Your task to perform on an android device: change keyboard looks Image 0: 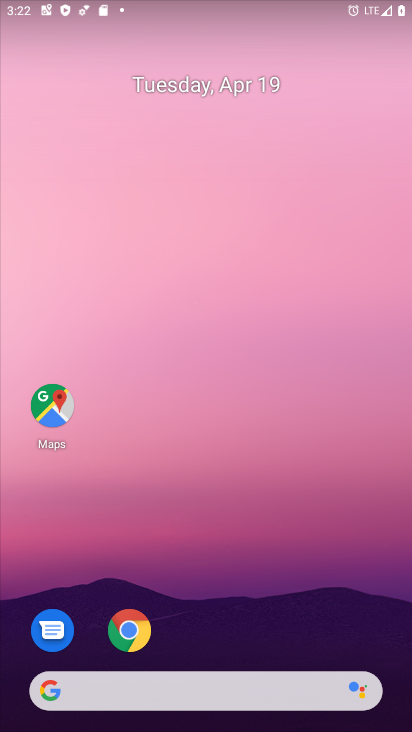
Step 0: drag from (218, 725) to (214, 71)
Your task to perform on an android device: change keyboard looks Image 1: 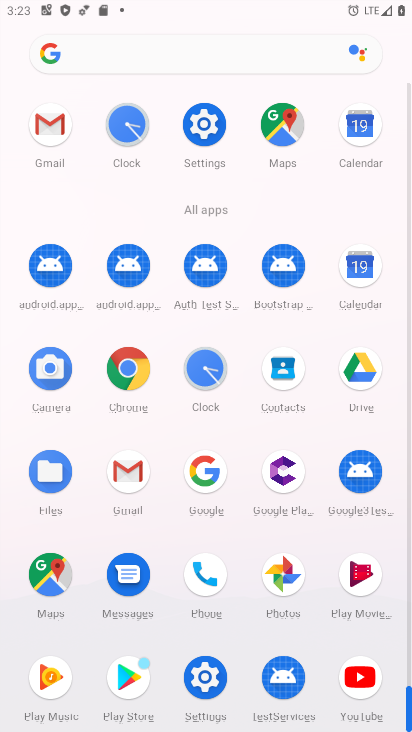
Step 1: click (200, 119)
Your task to perform on an android device: change keyboard looks Image 2: 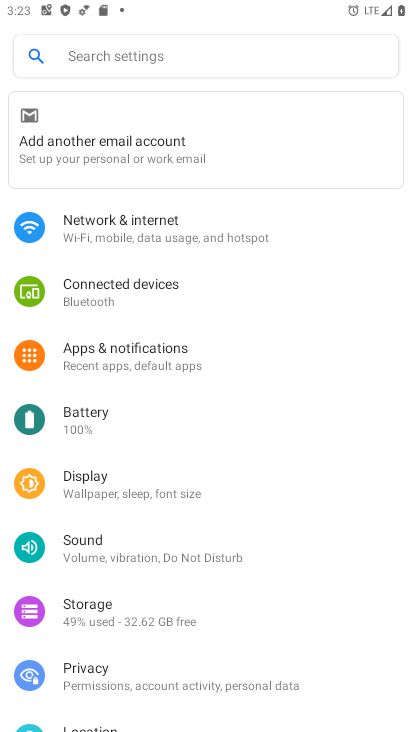
Step 2: drag from (121, 652) to (129, 96)
Your task to perform on an android device: change keyboard looks Image 3: 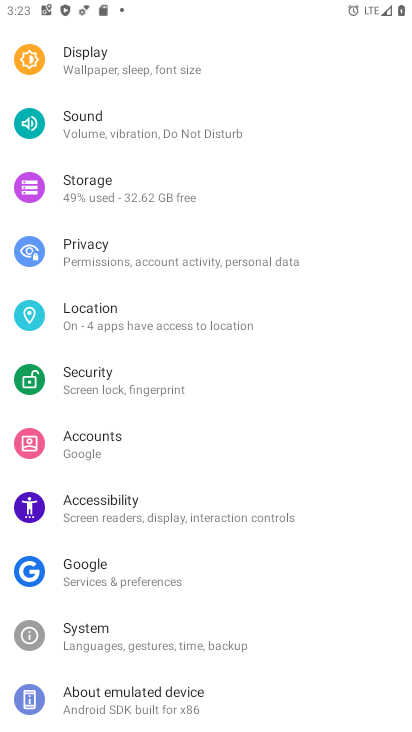
Step 3: drag from (167, 642) to (155, 56)
Your task to perform on an android device: change keyboard looks Image 4: 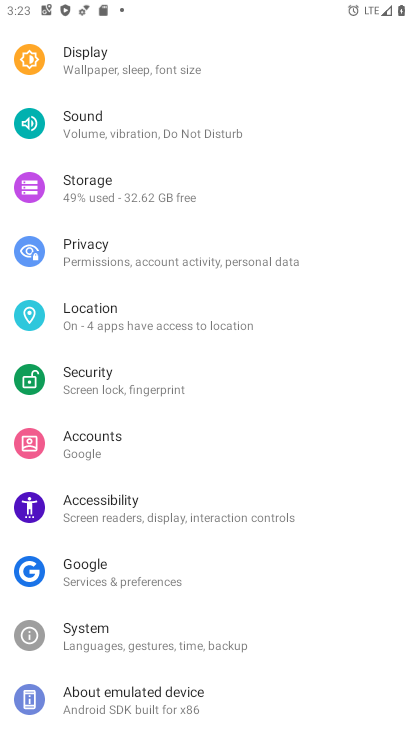
Step 4: click (74, 639)
Your task to perform on an android device: change keyboard looks Image 5: 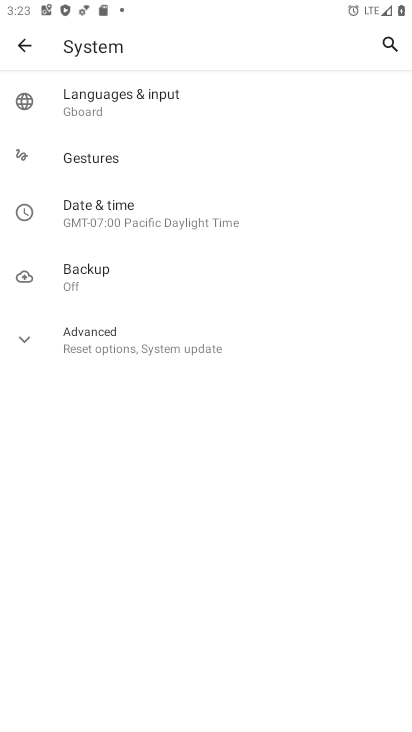
Step 5: click (79, 102)
Your task to perform on an android device: change keyboard looks Image 6: 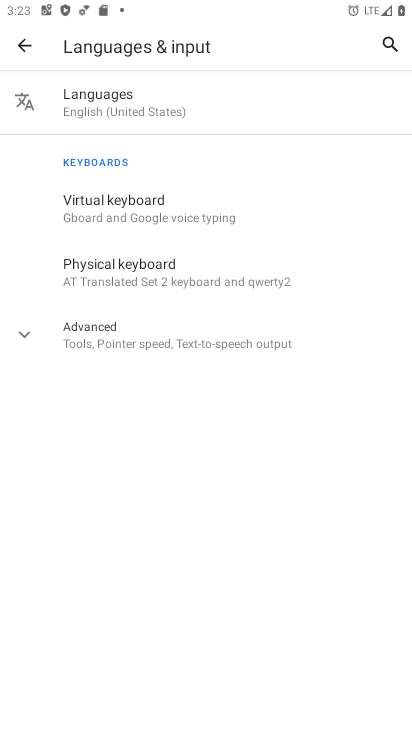
Step 6: click (108, 200)
Your task to perform on an android device: change keyboard looks Image 7: 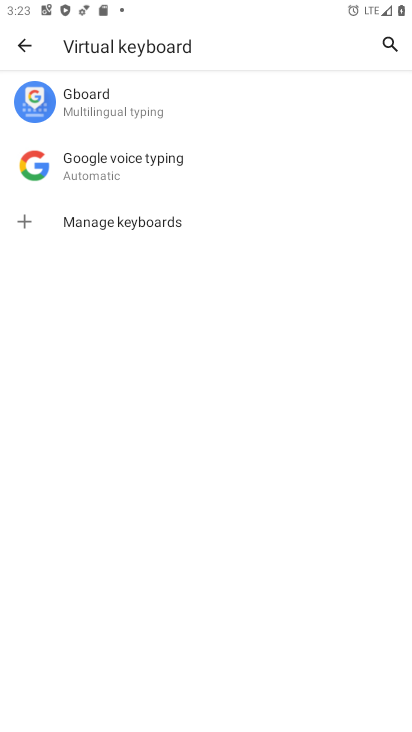
Step 7: click (89, 107)
Your task to perform on an android device: change keyboard looks Image 8: 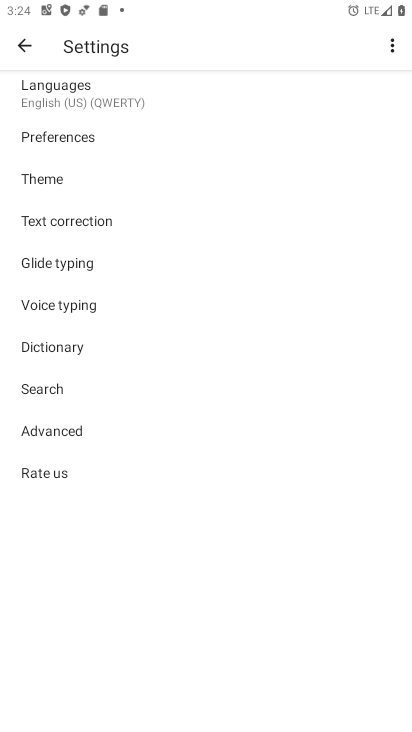
Step 8: click (44, 175)
Your task to perform on an android device: change keyboard looks Image 9: 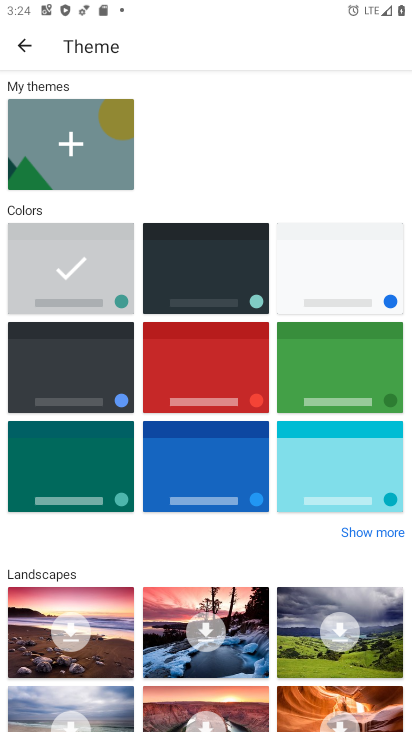
Step 9: click (200, 270)
Your task to perform on an android device: change keyboard looks Image 10: 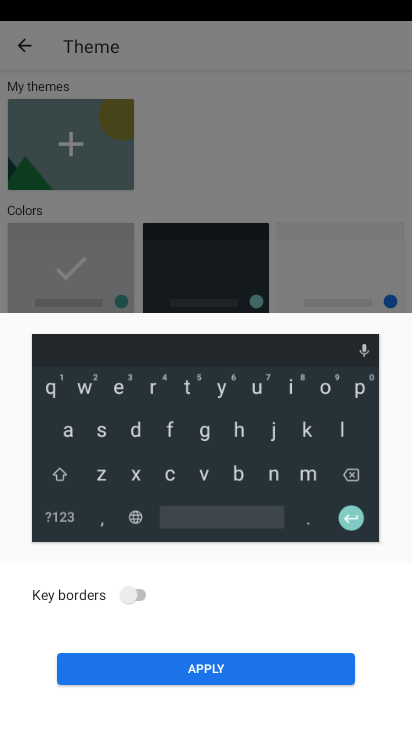
Step 10: click (139, 590)
Your task to perform on an android device: change keyboard looks Image 11: 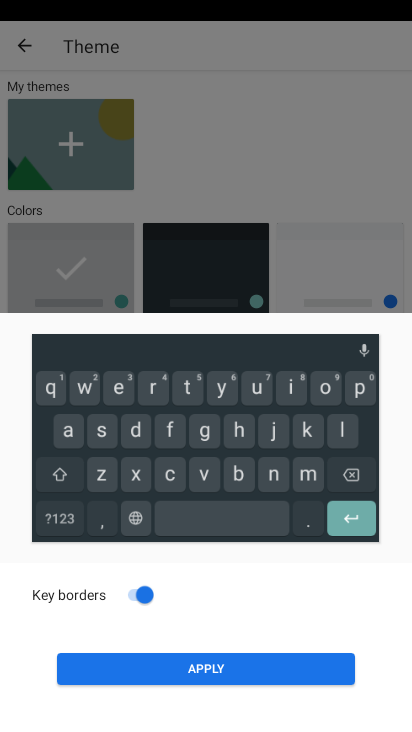
Step 11: click (207, 669)
Your task to perform on an android device: change keyboard looks Image 12: 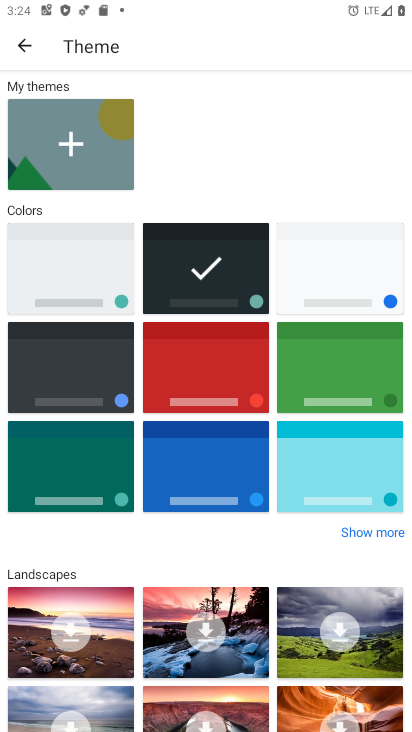
Step 12: task complete